Your task to perform on an android device: Open calendar and show me the second week of next month Image 0: 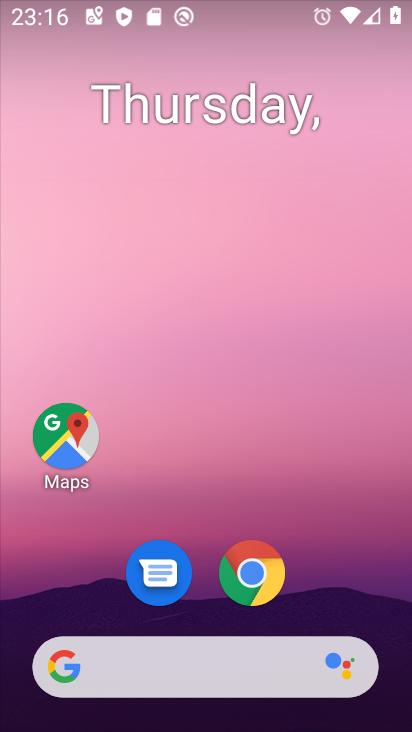
Step 0: drag from (323, 586) to (268, 86)
Your task to perform on an android device: Open calendar and show me the second week of next month Image 1: 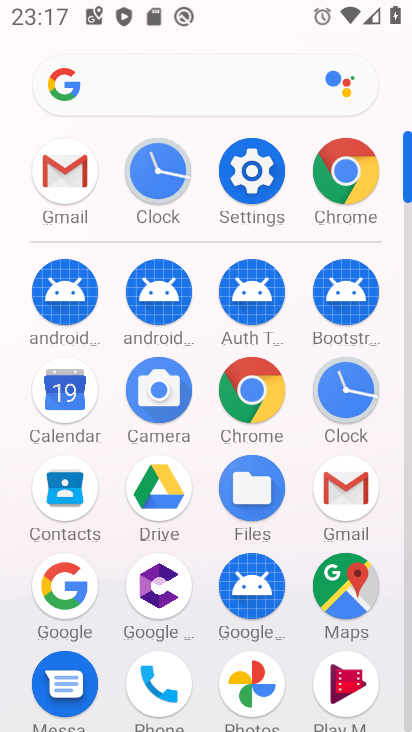
Step 1: click (68, 378)
Your task to perform on an android device: Open calendar and show me the second week of next month Image 2: 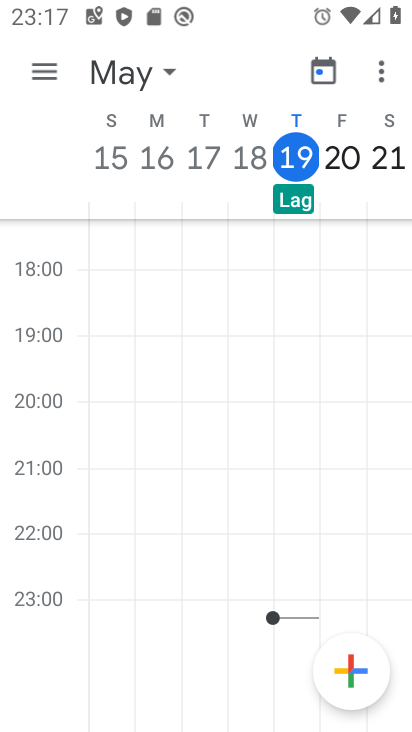
Step 2: click (118, 75)
Your task to perform on an android device: Open calendar and show me the second week of next month Image 3: 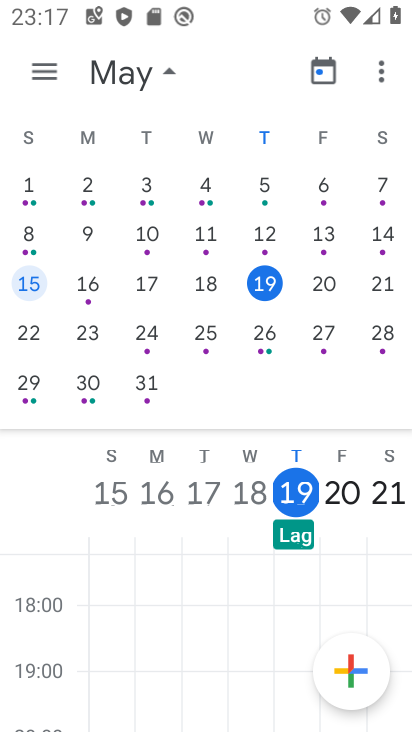
Step 3: drag from (356, 305) to (0, 286)
Your task to perform on an android device: Open calendar and show me the second week of next month Image 4: 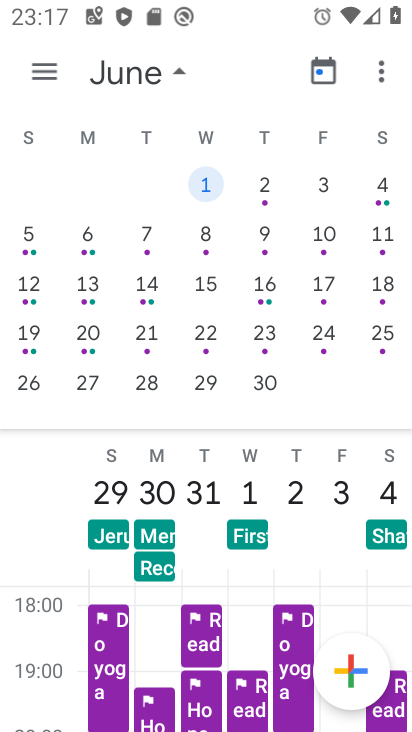
Step 4: click (30, 301)
Your task to perform on an android device: Open calendar and show me the second week of next month Image 5: 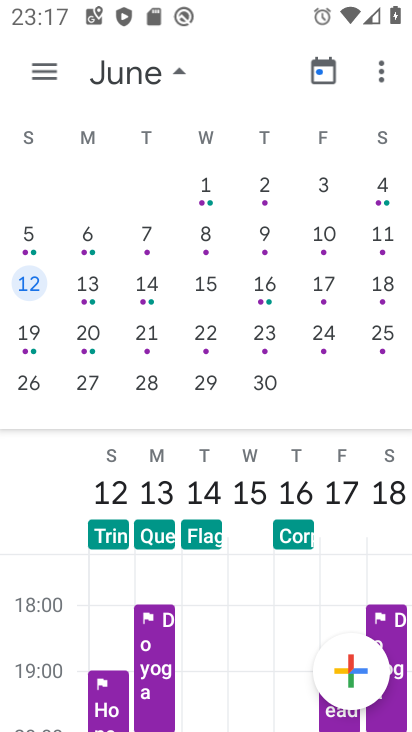
Step 5: task complete